Your task to perform on an android device: change your default location settings in chrome Image 0: 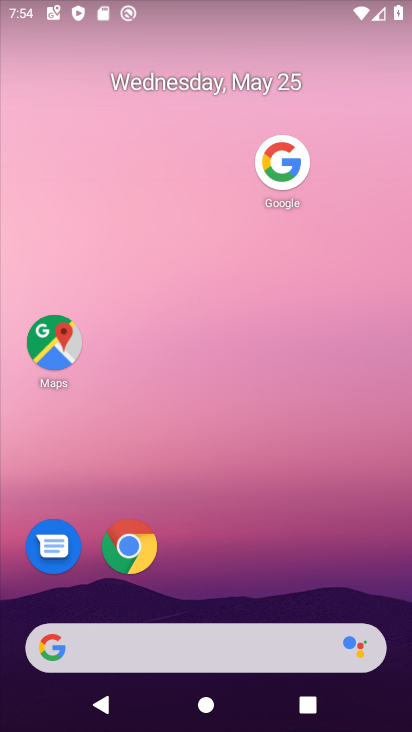
Step 0: click (132, 554)
Your task to perform on an android device: change your default location settings in chrome Image 1: 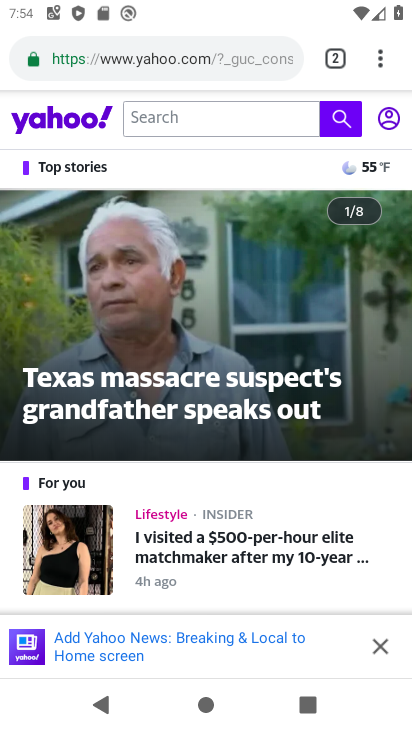
Step 1: drag from (378, 59) to (201, 566)
Your task to perform on an android device: change your default location settings in chrome Image 2: 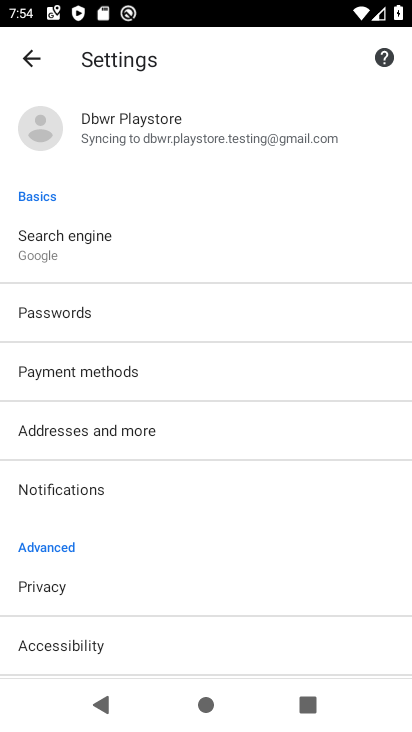
Step 2: drag from (181, 604) to (322, 172)
Your task to perform on an android device: change your default location settings in chrome Image 3: 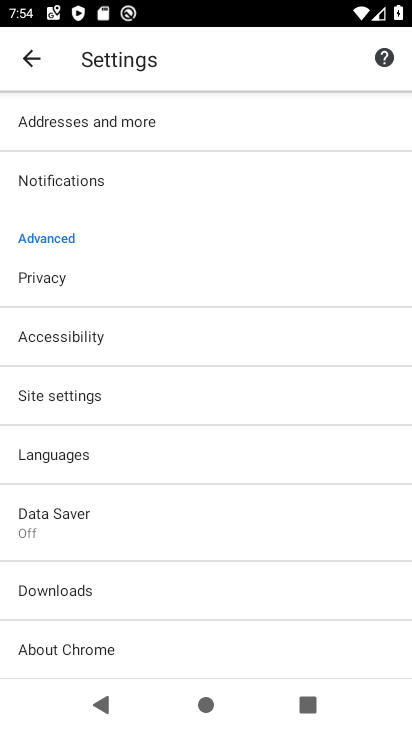
Step 3: click (90, 395)
Your task to perform on an android device: change your default location settings in chrome Image 4: 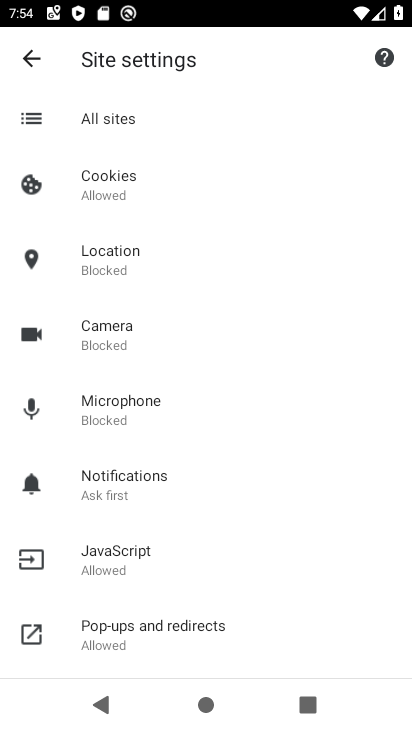
Step 4: click (132, 265)
Your task to perform on an android device: change your default location settings in chrome Image 5: 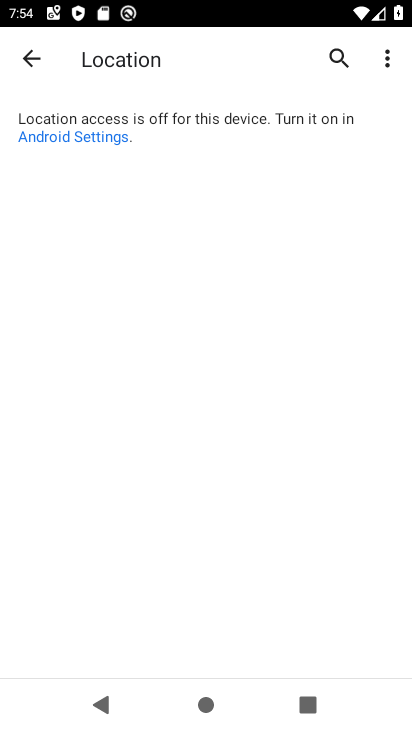
Step 5: task complete